Your task to perform on an android device: toggle airplane mode Image 0: 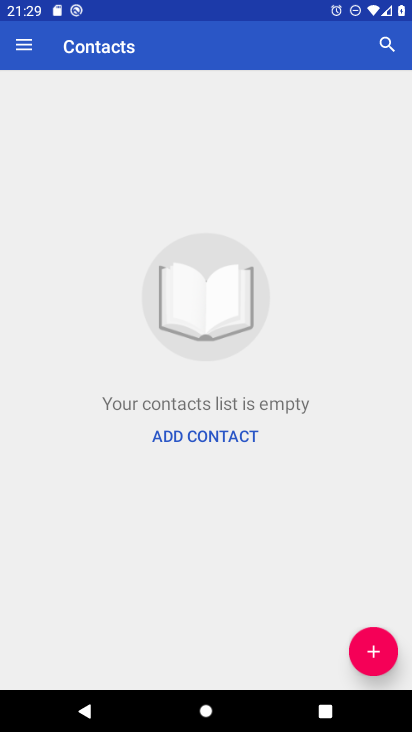
Step 0: press home button
Your task to perform on an android device: toggle airplane mode Image 1: 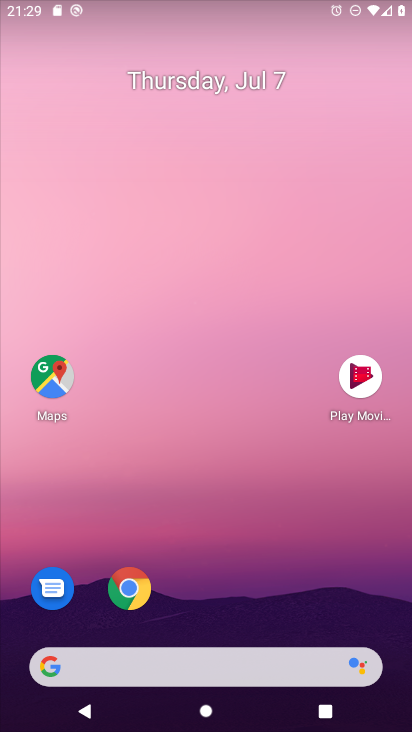
Step 1: drag from (245, 575) to (241, 220)
Your task to perform on an android device: toggle airplane mode Image 2: 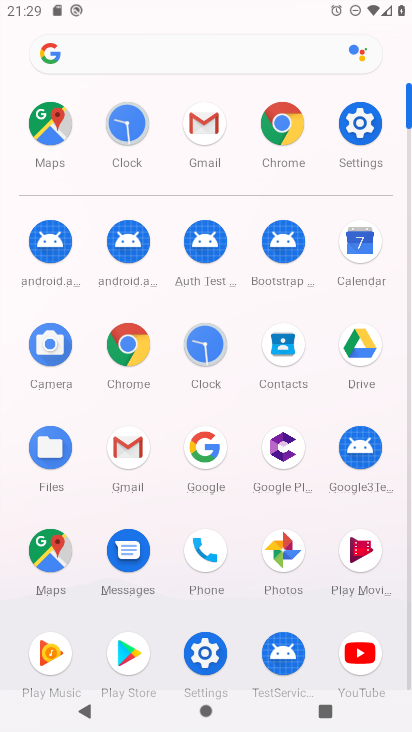
Step 2: click (357, 120)
Your task to perform on an android device: toggle airplane mode Image 3: 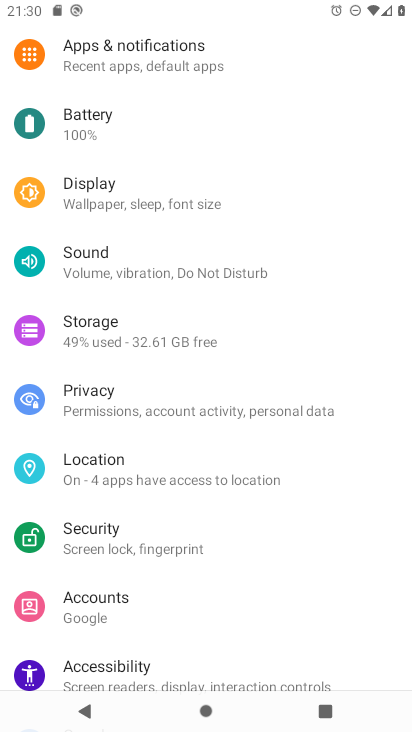
Step 3: drag from (152, 87) to (234, 612)
Your task to perform on an android device: toggle airplane mode Image 4: 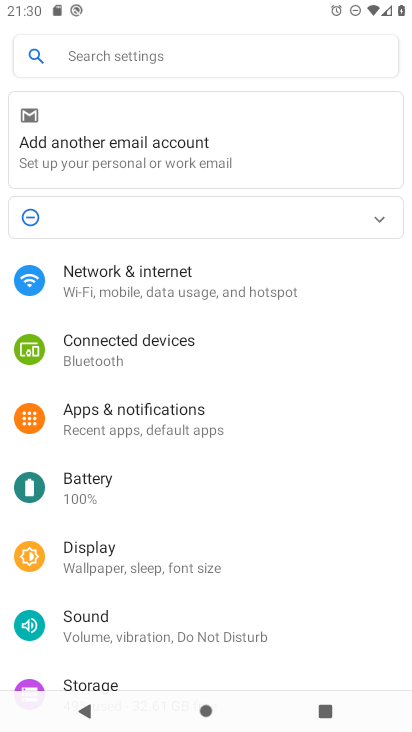
Step 4: click (167, 287)
Your task to perform on an android device: toggle airplane mode Image 5: 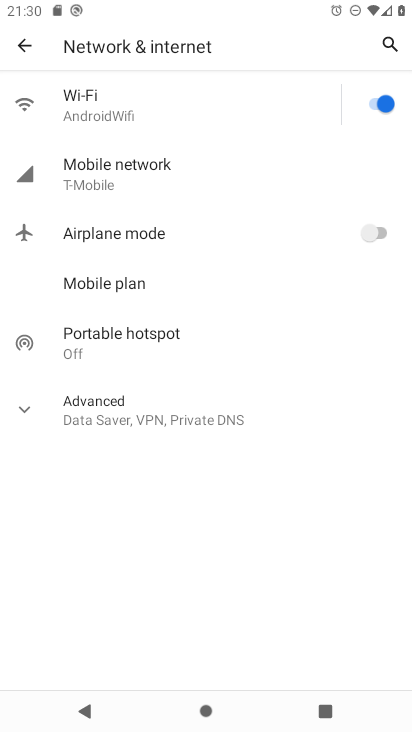
Step 5: click (378, 228)
Your task to perform on an android device: toggle airplane mode Image 6: 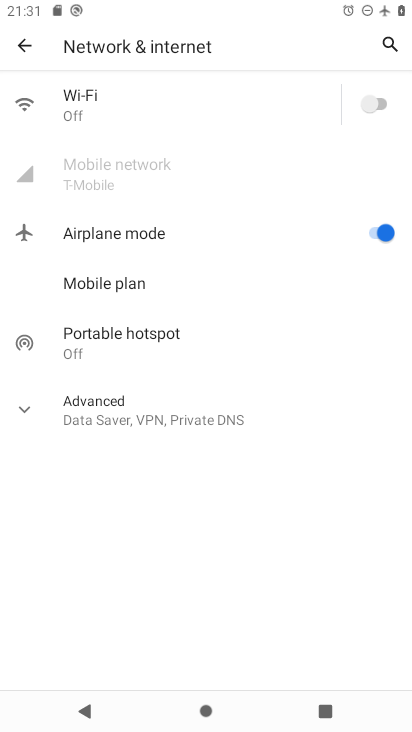
Step 6: task complete